Your task to perform on an android device: Find coffee shops on Maps Image 0: 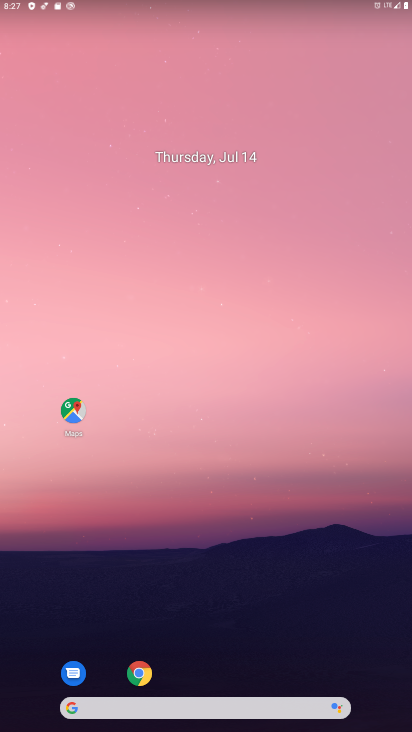
Step 0: click (72, 412)
Your task to perform on an android device: Find coffee shops on Maps Image 1: 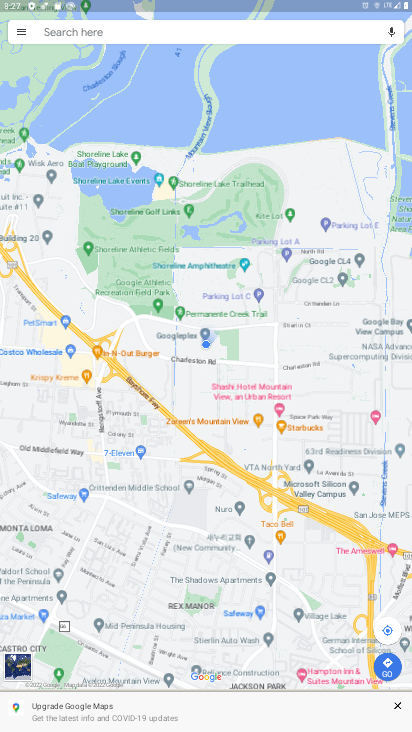
Step 1: click (208, 34)
Your task to perform on an android device: Find coffee shops on Maps Image 2: 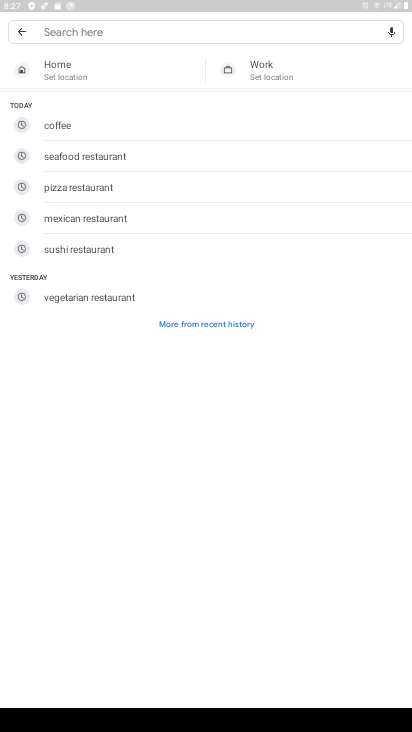
Step 2: type "coffee shops"
Your task to perform on an android device: Find coffee shops on Maps Image 3: 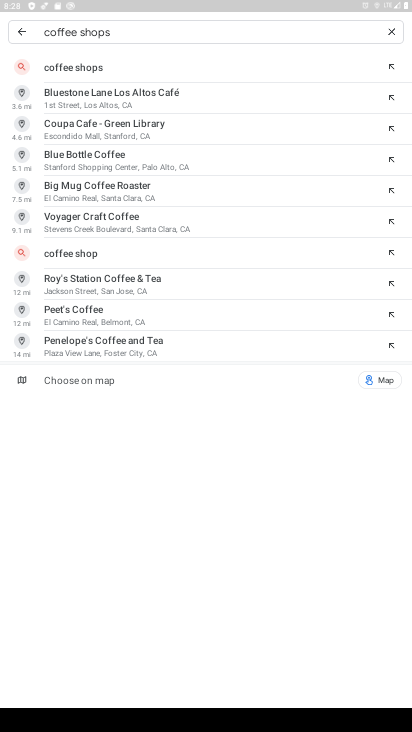
Step 3: click (95, 65)
Your task to perform on an android device: Find coffee shops on Maps Image 4: 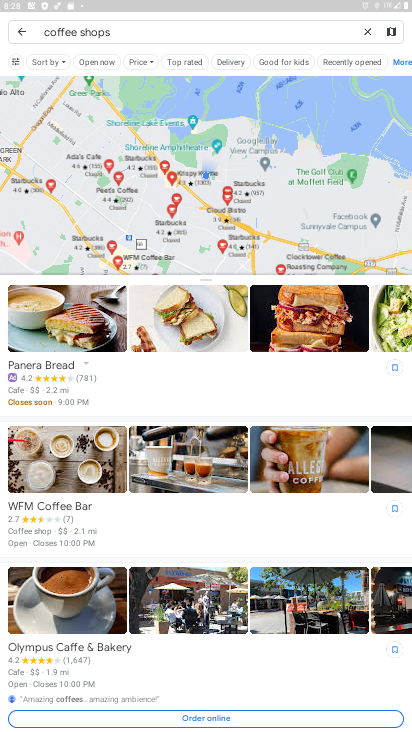
Step 4: task complete